Your task to perform on an android device: Go to CNN.com Image 0: 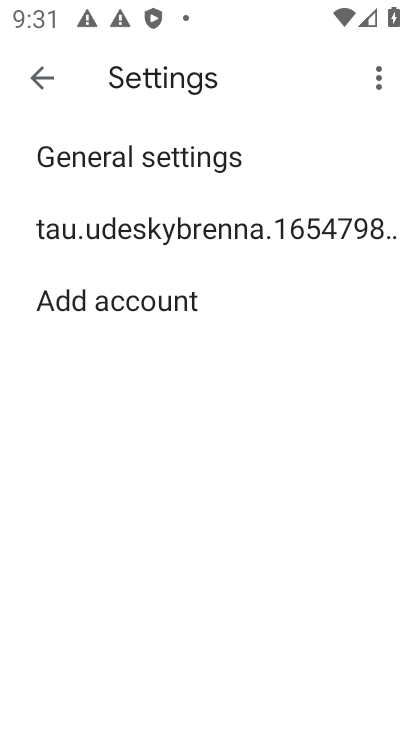
Step 0: press home button
Your task to perform on an android device: Go to CNN.com Image 1: 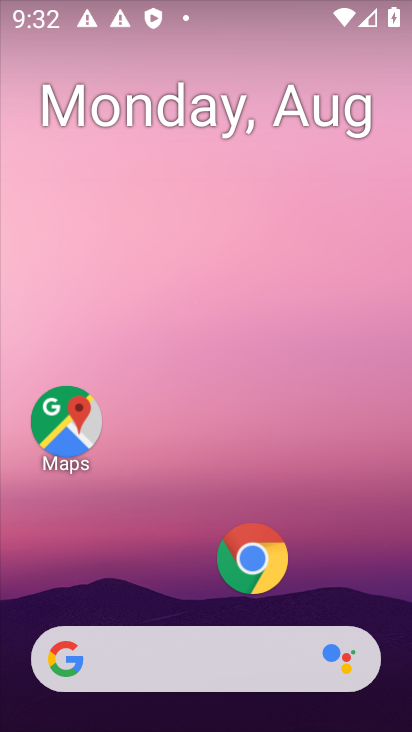
Step 1: drag from (177, 587) to (218, 37)
Your task to perform on an android device: Go to CNN.com Image 2: 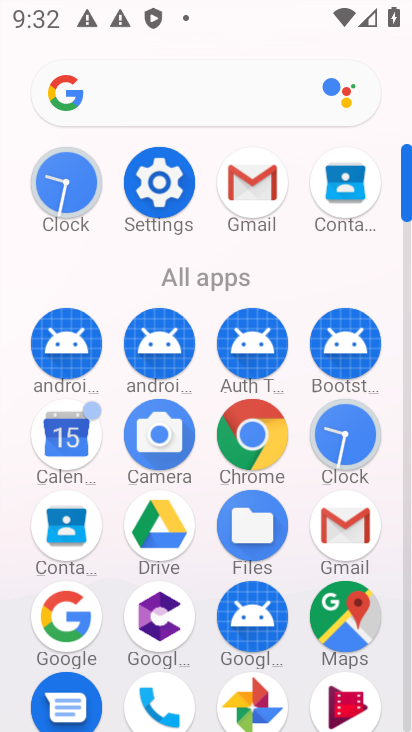
Step 2: click (252, 431)
Your task to perform on an android device: Go to CNN.com Image 3: 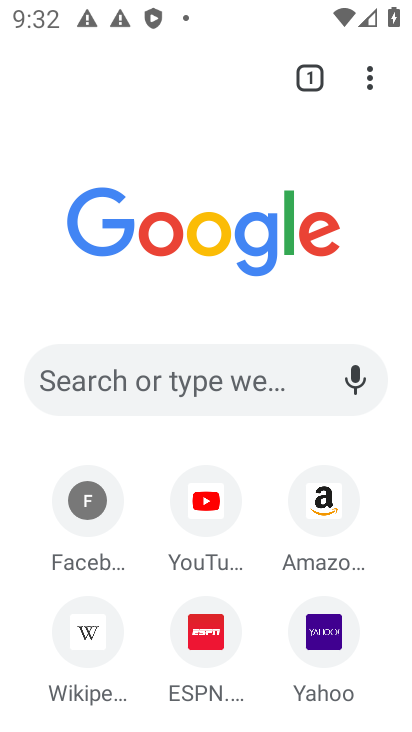
Step 3: click (372, 77)
Your task to perform on an android device: Go to CNN.com Image 4: 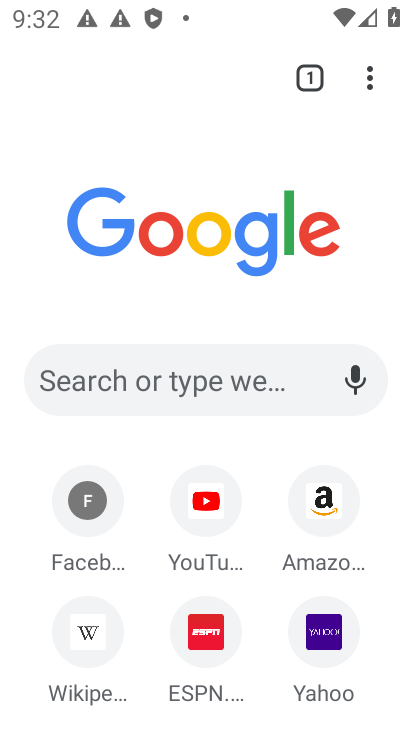
Step 4: click (374, 77)
Your task to perform on an android device: Go to CNN.com Image 5: 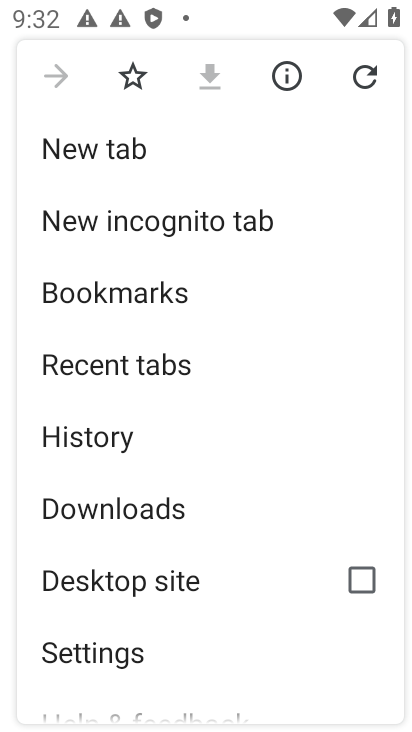
Step 5: click (47, 75)
Your task to perform on an android device: Go to CNN.com Image 6: 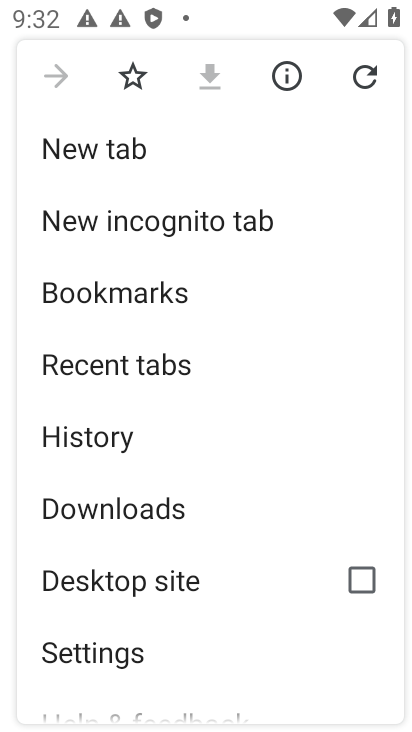
Step 6: press back button
Your task to perform on an android device: Go to CNN.com Image 7: 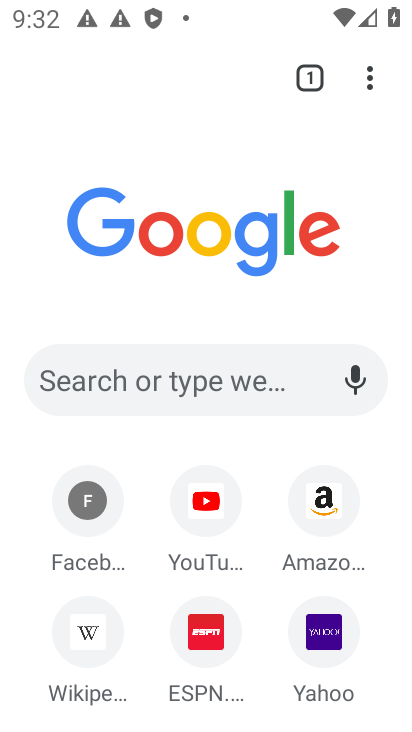
Step 7: click (161, 375)
Your task to perform on an android device: Go to CNN.com Image 8: 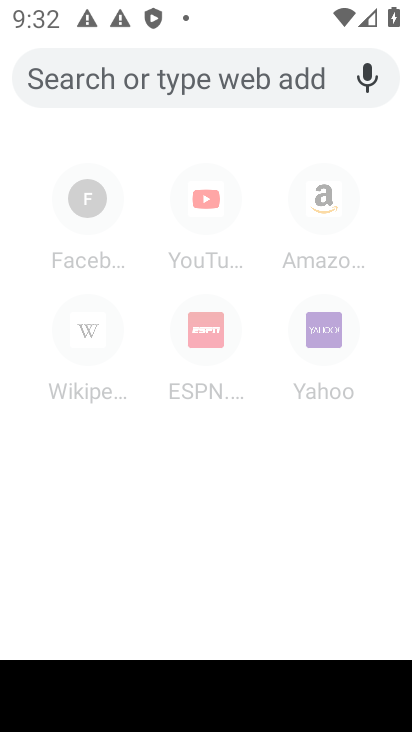
Step 8: type "cnn.com"
Your task to perform on an android device: Go to CNN.com Image 9: 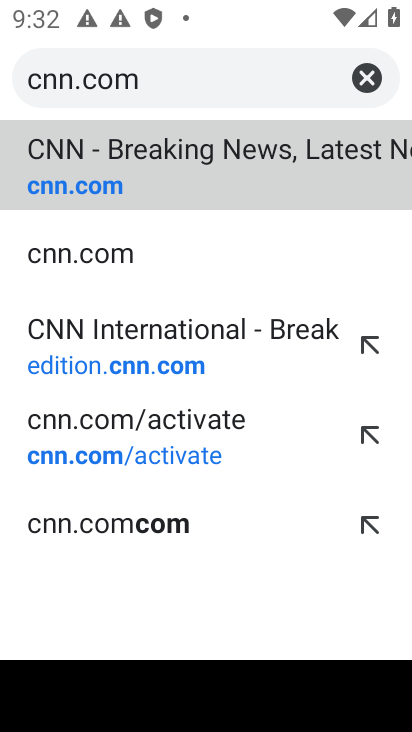
Step 9: click (145, 173)
Your task to perform on an android device: Go to CNN.com Image 10: 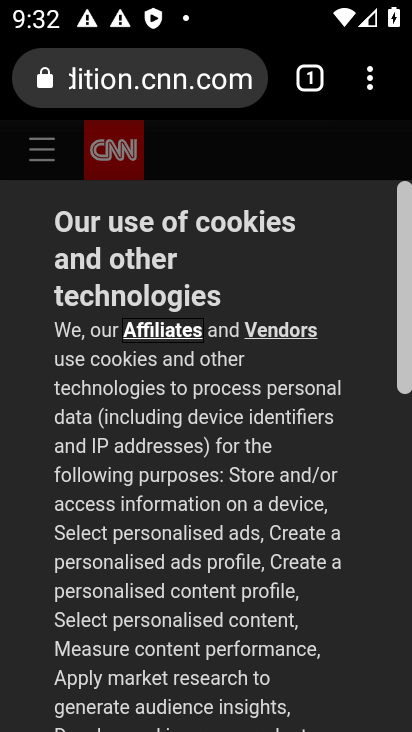
Step 10: drag from (193, 659) to (210, 123)
Your task to perform on an android device: Go to CNN.com Image 11: 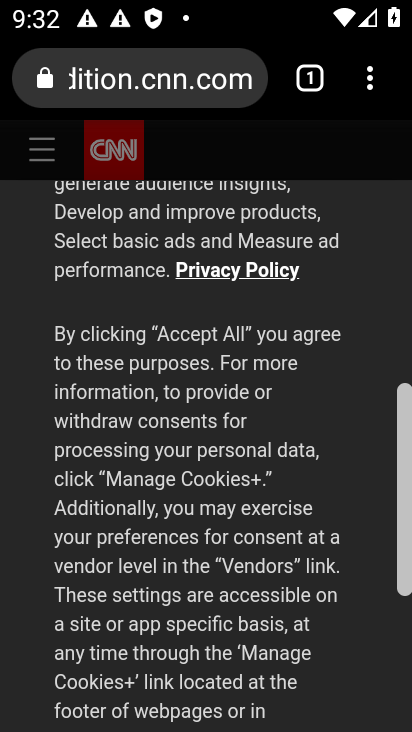
Step 11: drag from (223, 685) to (228, 163)
Your task to perform on an android device: Go to CNN.com Image 12: 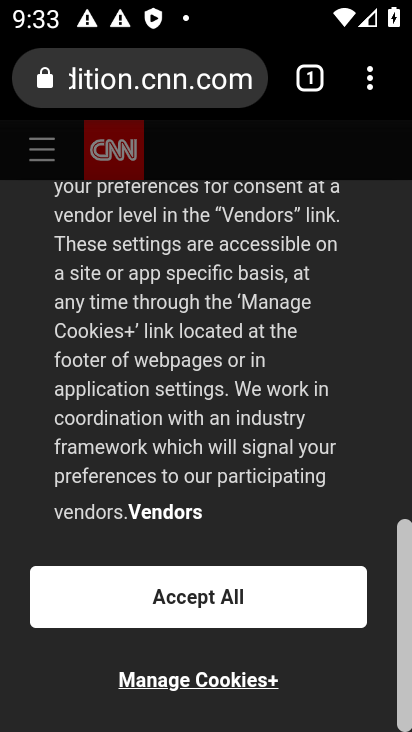
Step 12: click (213, 598)
Your task to perform on an android device: Go to CNN.com Image 13: 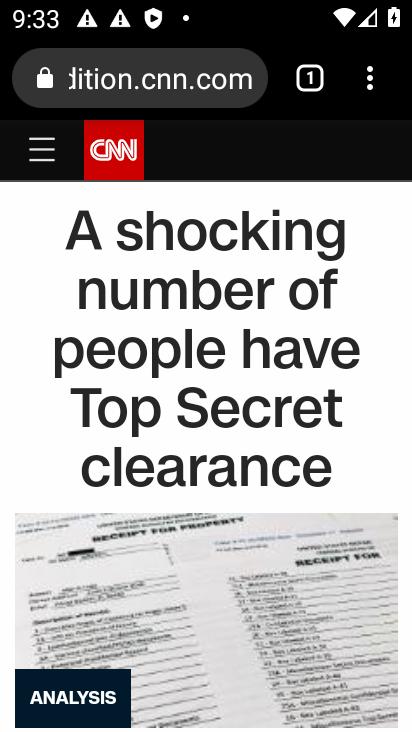
Step 13: task complete